Your task to perform on an android device: all mails in gmail Image 0: 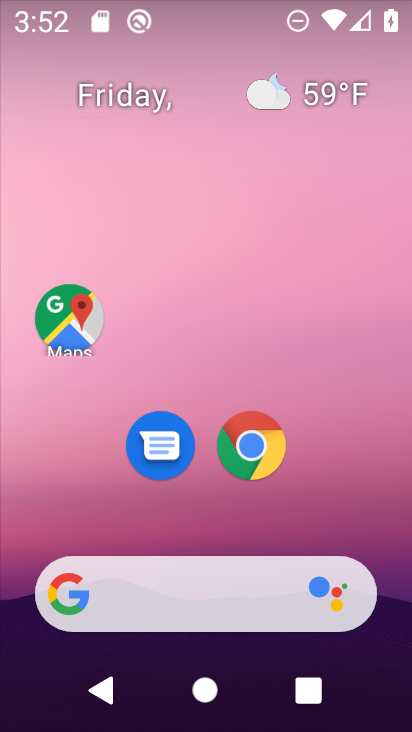
Step 0: drag from (386, 584) to (405, 115)
Your task to perform on an android device: all mails in gmail Image 1: 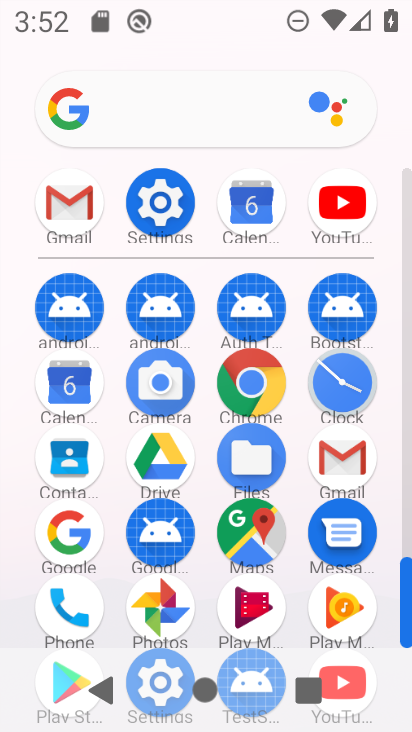
Step 1: click (339, 450)
Your task to perform on an android device: all mails in gmail Image 2: 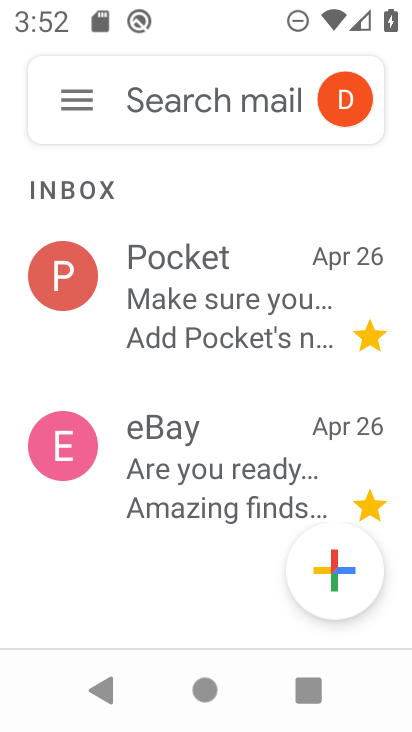
Step 2: click (69, 95)
Your task to perform on an android device: all mails in gmail Image 3: 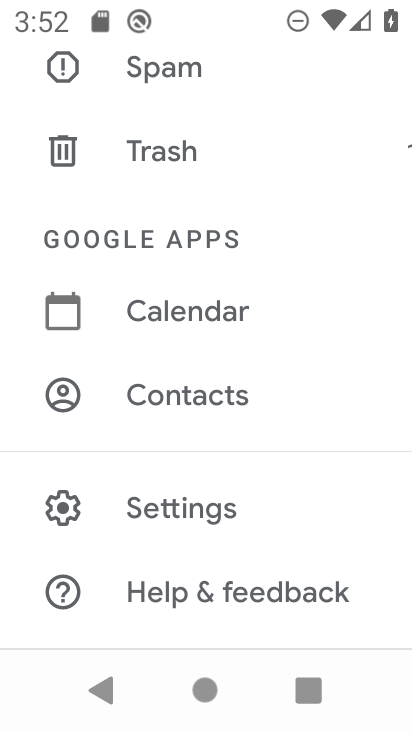
Step 3: drag from (288, 175) to (252, 452)
Your task to perform on an android device: all mails in gmail Image 4: 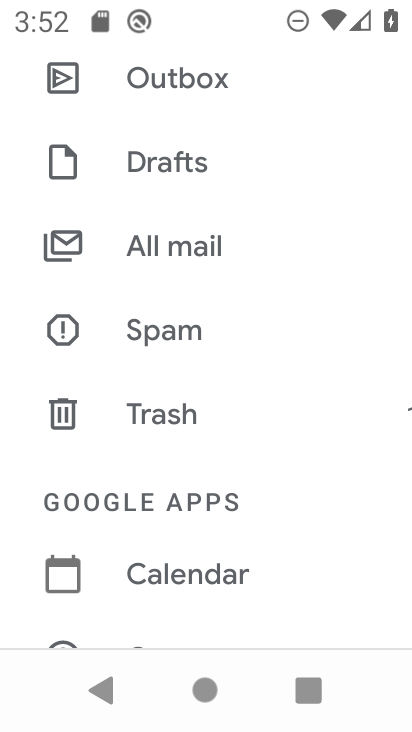
Step 4: click (163, 242)
Your task to perform on an android device: all mails in gmail Image 5: 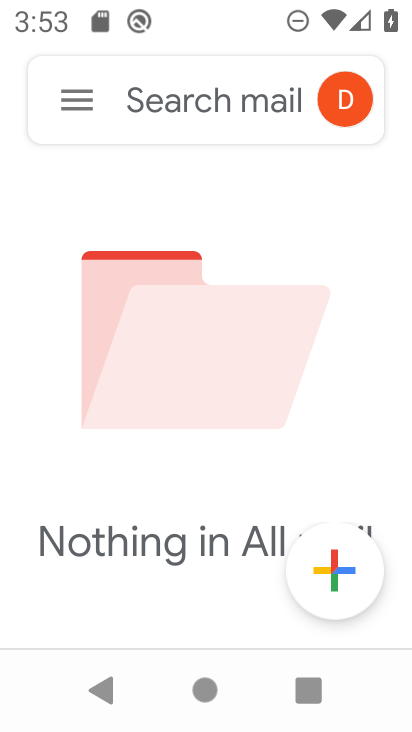
Step 5: task complete